Your task to perform on an android device: Go to battery settings Image 0: 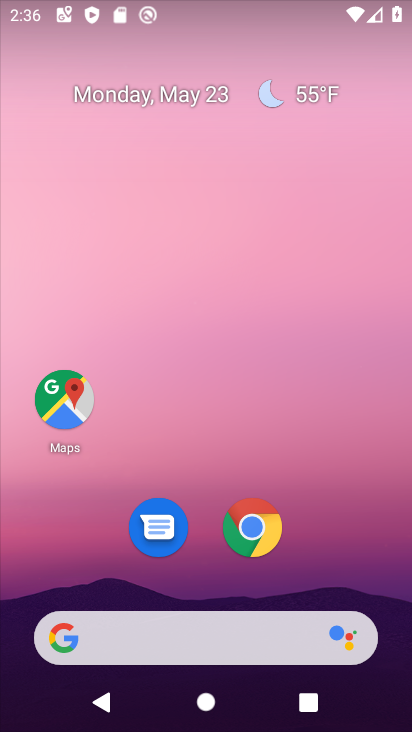
Step 0: drag from (336, 563) to (259, 28)
Your task to perform on an android device: Go to battery settings Image 1: 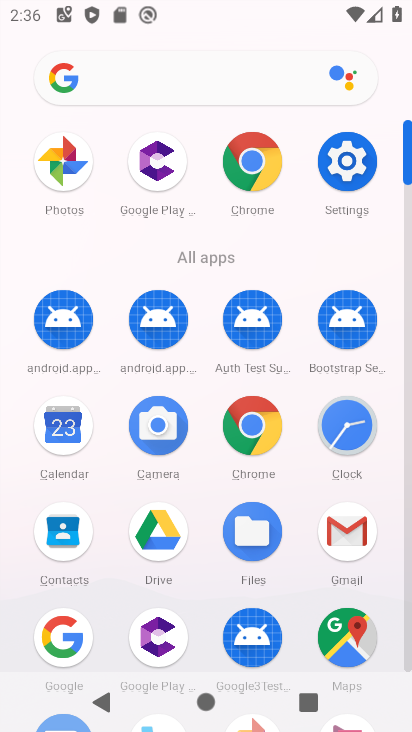
Step 1: drag from (18, 605) to (17, 212)
Your task to perform on an android device: Go to battery settings Image 2: 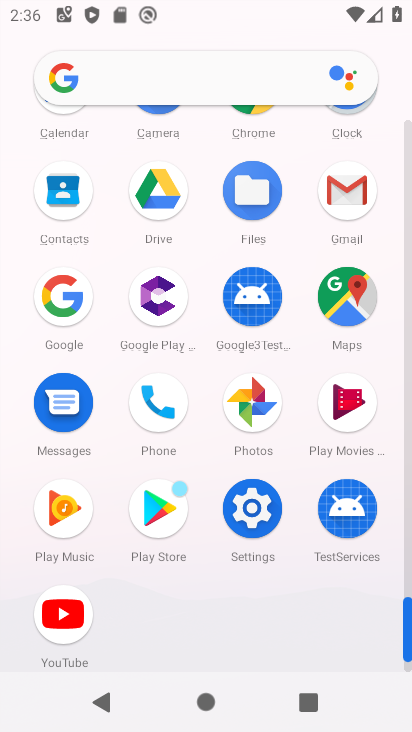
Step 2: click (254, 507)
Your task to perform on an android device: Go to battery settings Image 3: 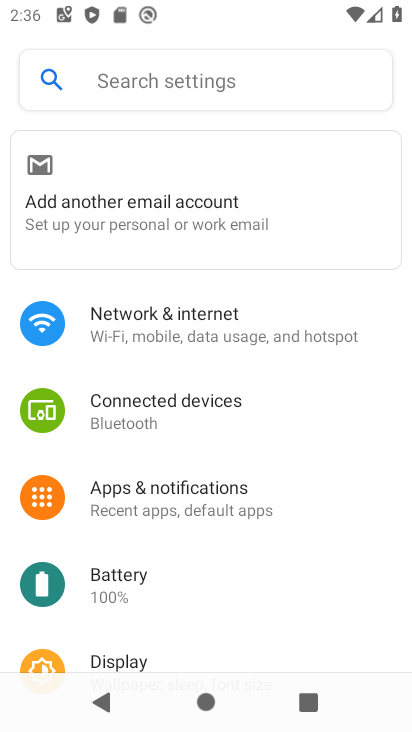
Step 3: drag from (258, 581) to (301, 232)
Your task to perform on an android device: Go to battery settings Image 4: 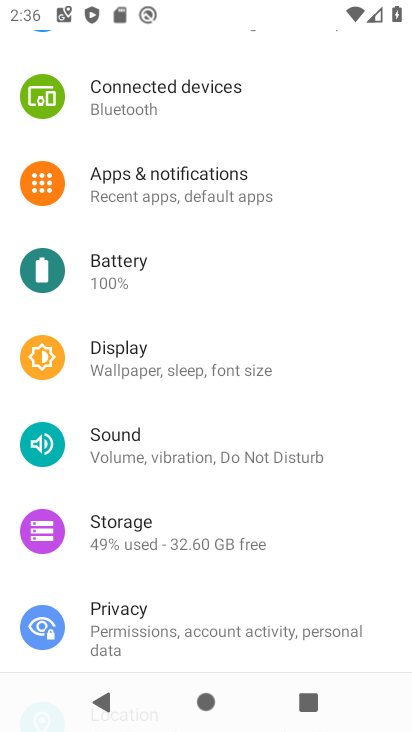
Step 4: click (135, 263)
Your task to perform on an android device: Go to battery settings Image 5: 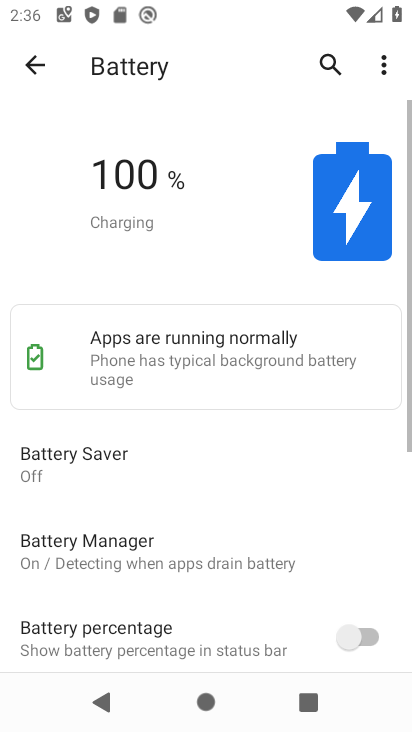
Step 5: task complete